Your task to perform on an android device: Go to eBay Image 0: 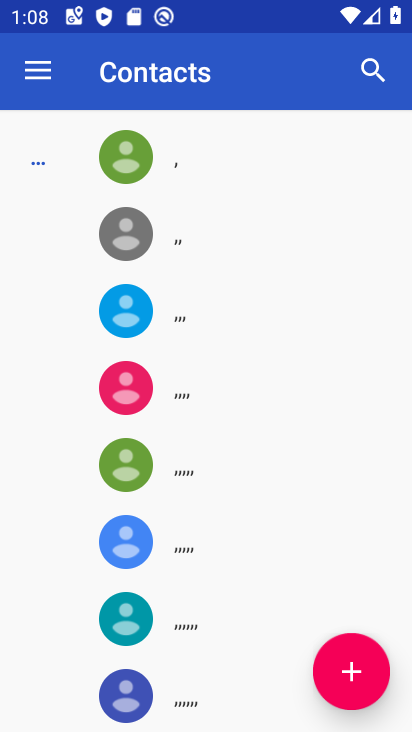
Step 0: press home button
Your task to perform on an android device: Go to eBay Image 1: 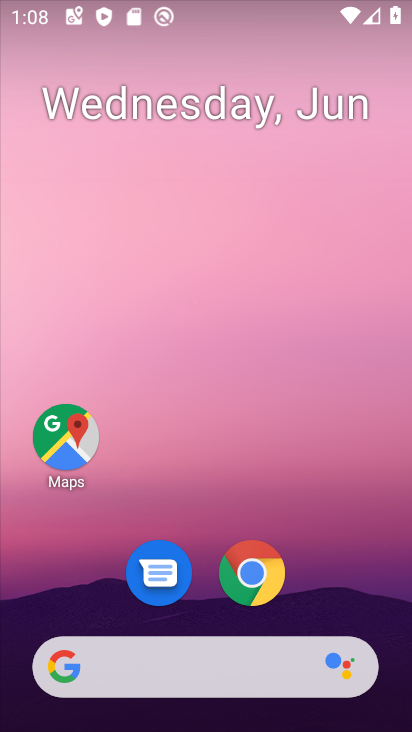
Step 1: drag from (303, 578) to (288, 101)
Your task to perform on an android device: Go to eBay Image 2: 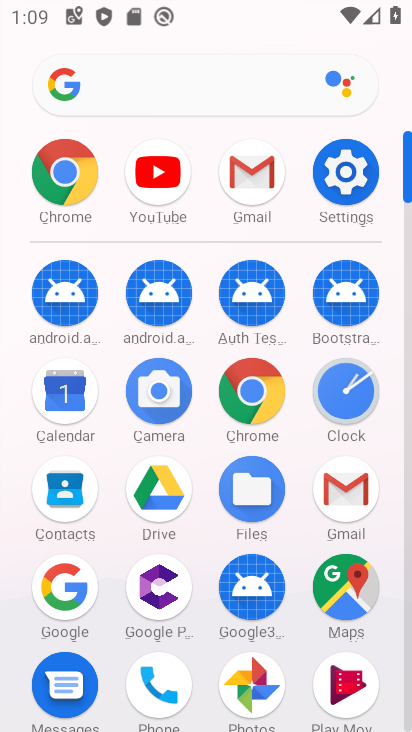
Step 2: click (274, 403)
Your task to perform on an android device: Go to eBay Image 3: 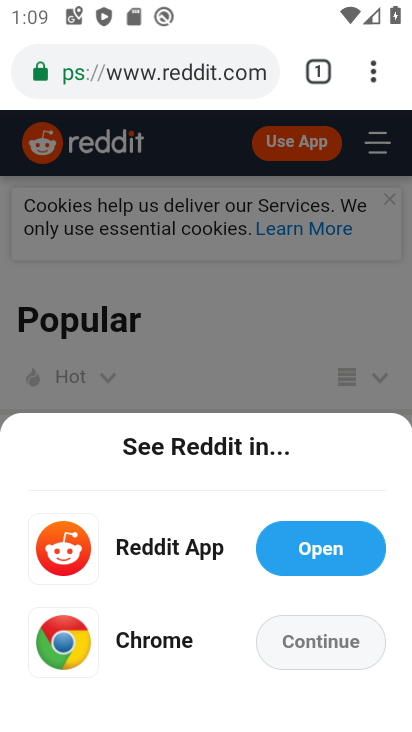
Step 3: click (223, 75)
Your task to perform on an android device: Go to eBay Image 4: 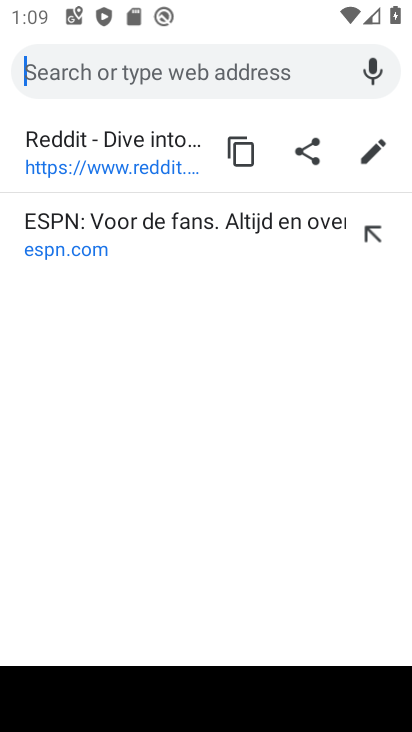
Step 4: type "ebay"
Your task to perform on an android device: Go to eBay Image 5: 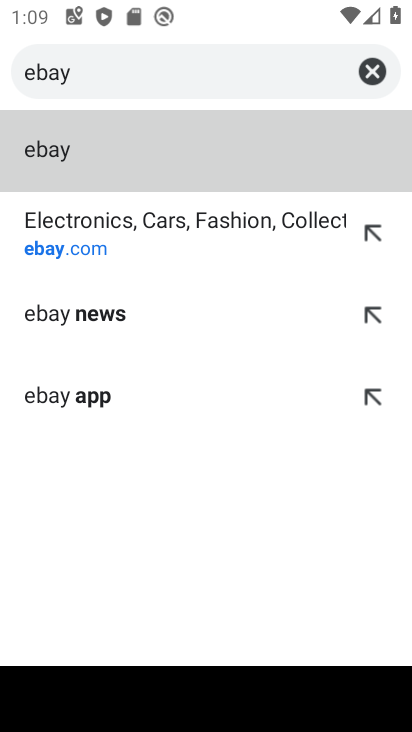
Step 5: click (38, 145)
Your task to perform on an android device: Go to eBay Image 6: 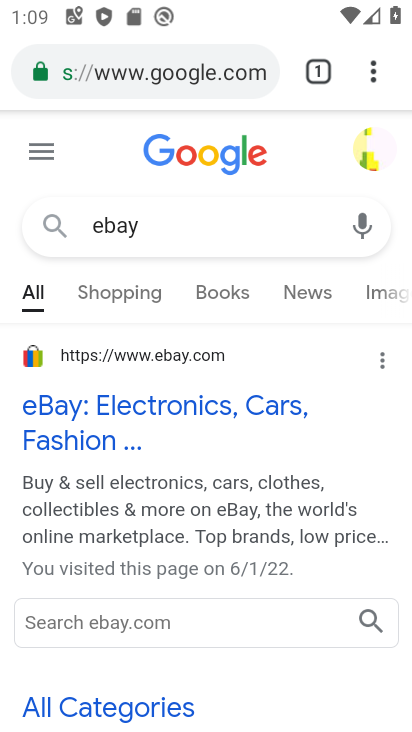
Step 6: click (211, 402)
Your task to perform on an android device: Go to eBay Image 7: 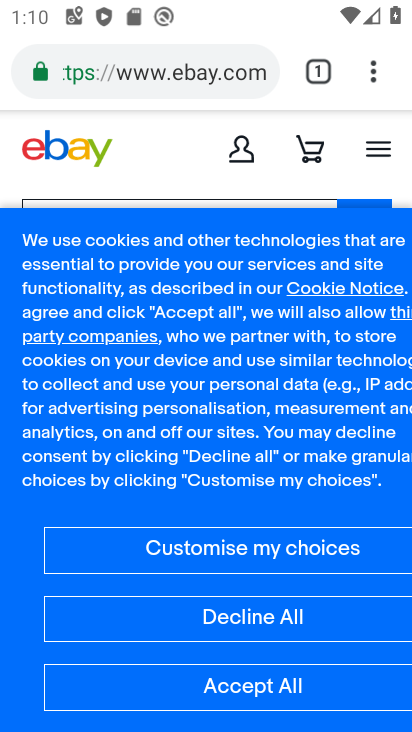
Step 7: task complete